Your task to perform on an android device: Do I have any events this weekend? Image 0: 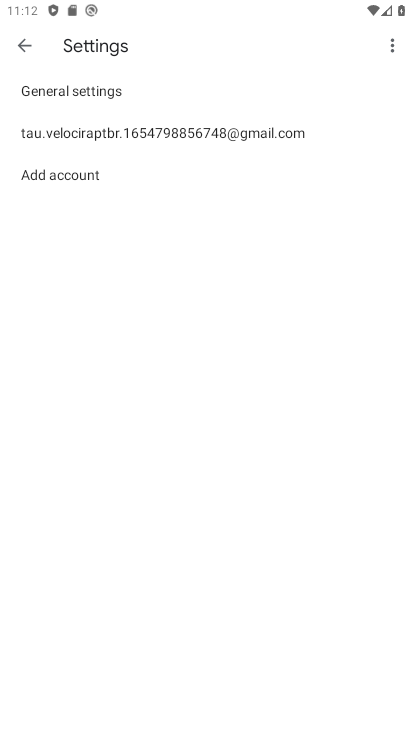
Step 0: press home button
Your task to perform on an android device: Do I have any events this weekend? Image 1: 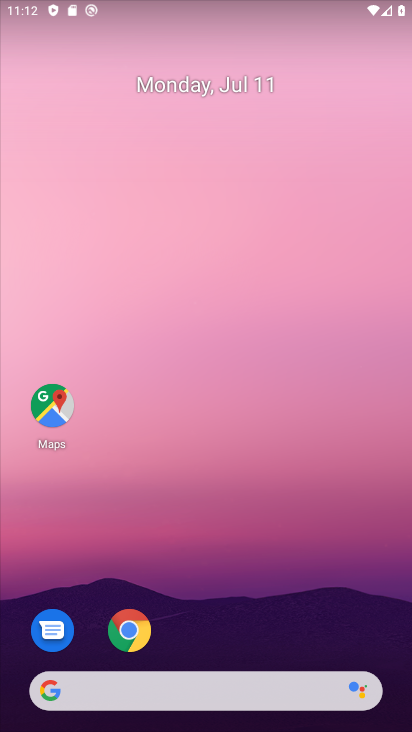
Step 1: drag from (220, 610) to (264, 84)
Your task to perform on an android device: Do I have any events this weekend? Image 2: 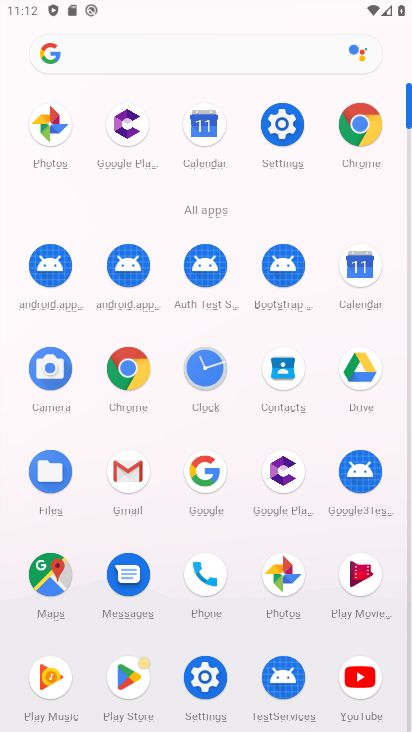
Step 2: click (195, 116)
Your task to perform on an android device: Do I have any events this weekend? Image 3: 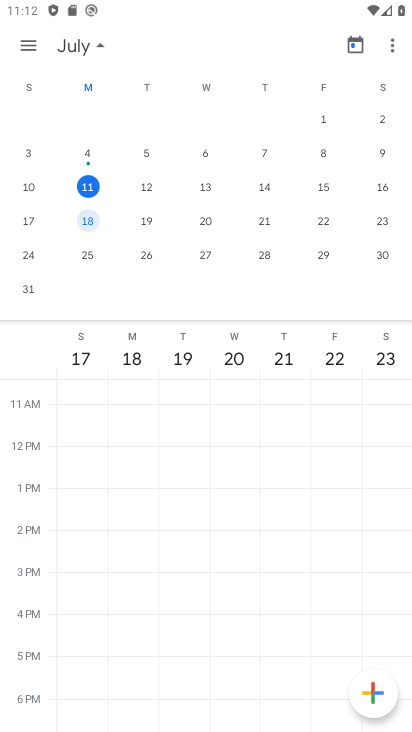
Step 3: click (28, 37)
Your task to perform on an android device: Do I have any events this weekend? Image 4: 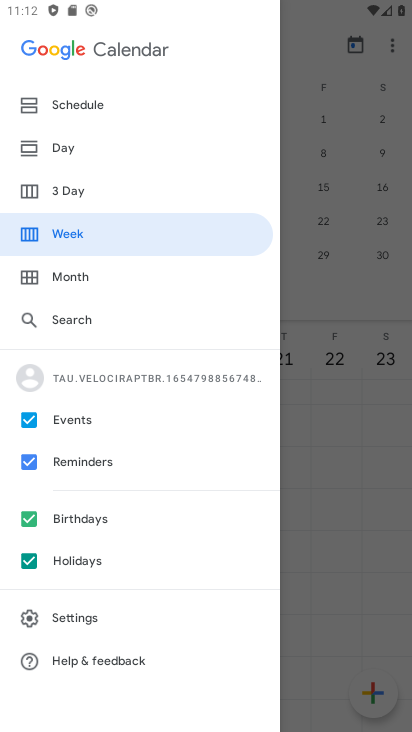
Step 4: click (68, 198)
Your task to perform on an android device: Do I have any events this weekend? Image 5: 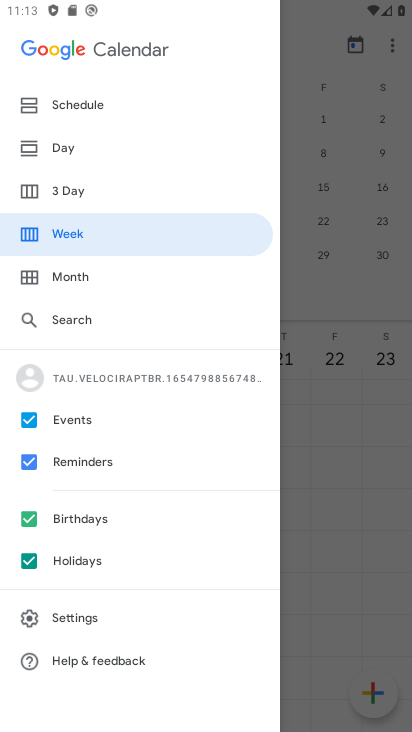
Step 5: click (59, 152)
Your task to perform on an android device: Do I have any events this weekend? Image 6: 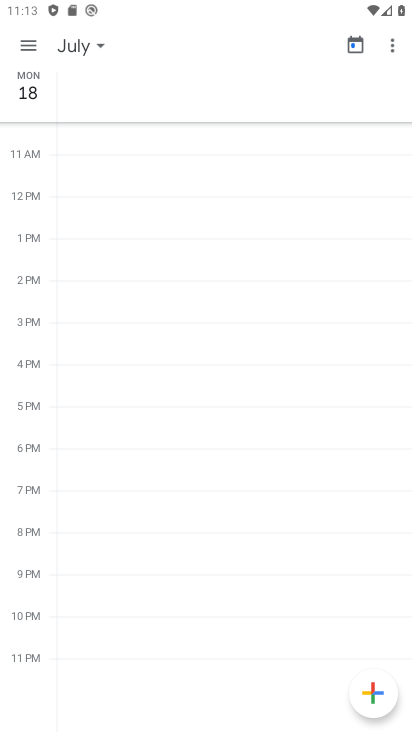
Step 6: click (85, 40)
Your task to perform on an android device: Do I have any events this weekend? Image 7: 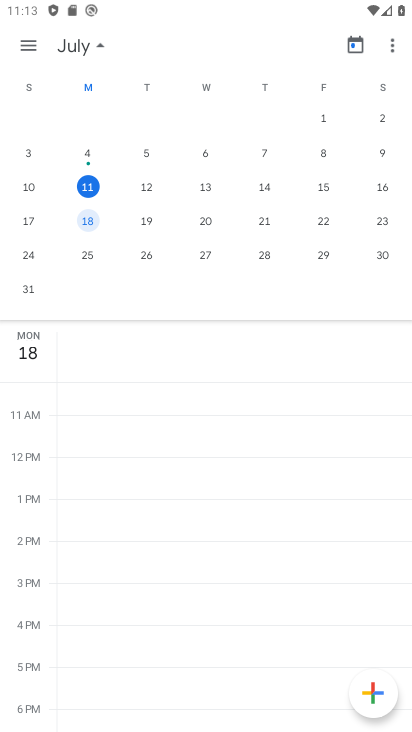
Step 7: click (383, 184)
Your task to perform on an android device: Do I have any events this weekend? Image 8: 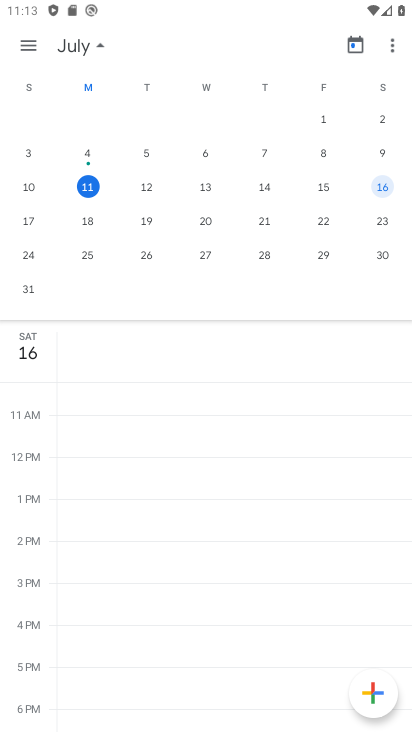
Step 8: task complete